Your task to perform on an android device: choose inbox layout in the gmail app Image 0: 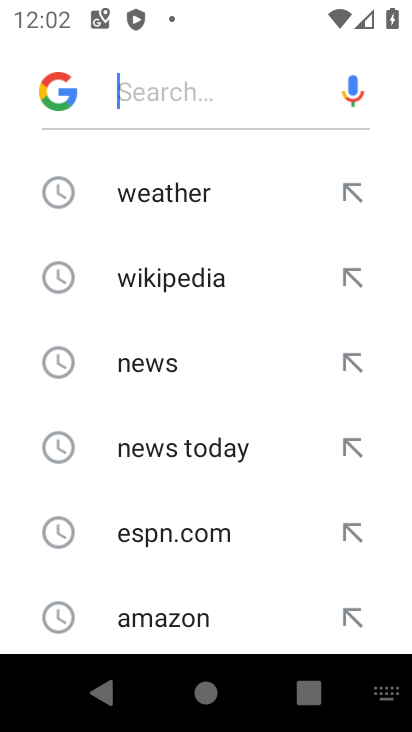
Step 0: press back button
Your task to perform on an android device: choose inbox layout in the gmail app Image 1: 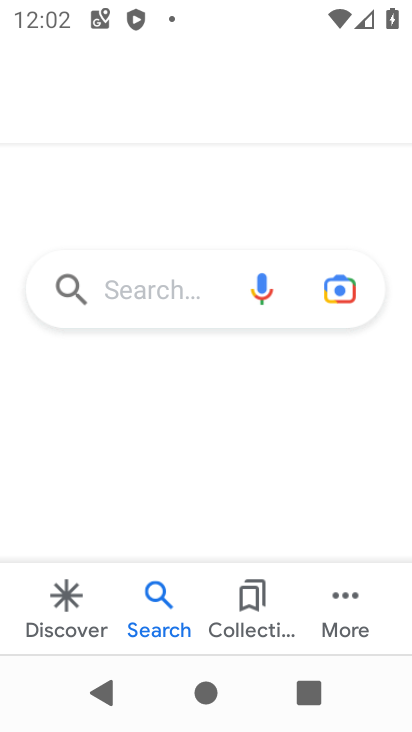
Step 1: press back button
Your task to perform on an android device: choose inbox layout in the gmail app Image 2: 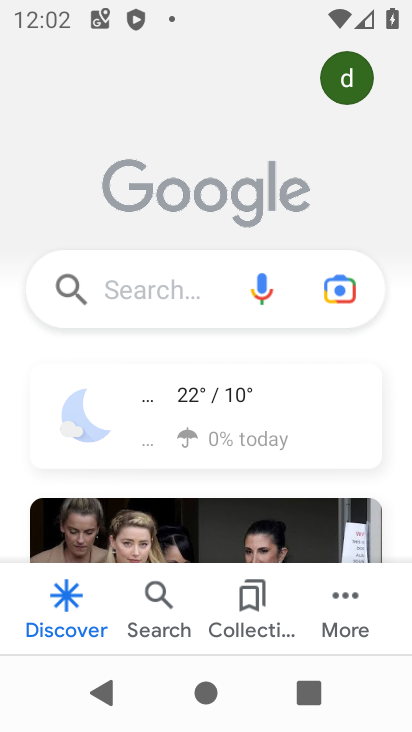
Step 2: press back button
Your task to perform on an android device: choose inbox layout in the gmail app Image 3: 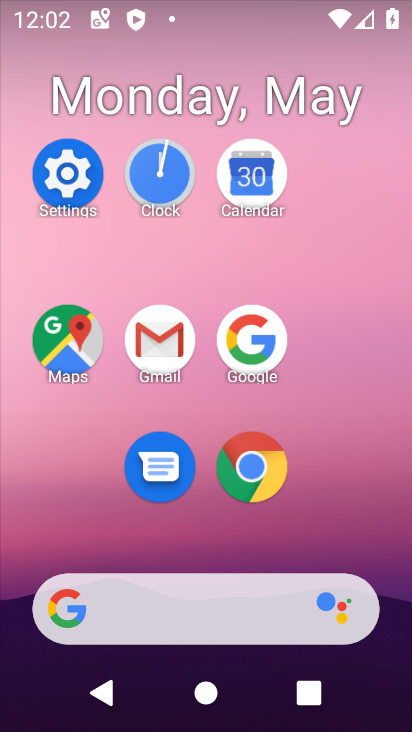
Step 3: click (160, 343)
Your task to perform on an android device: choose inbox layout in the gmail app Image 4: 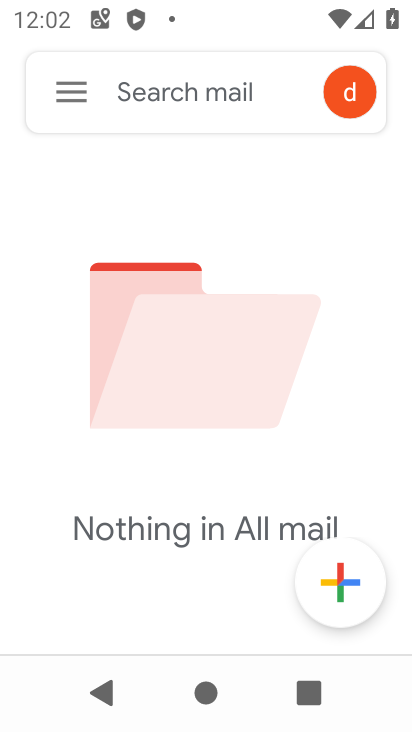
Step 4: click (47, 106)
Your task to perform on an android device: choose inbox layout in the gmail app Image 5: 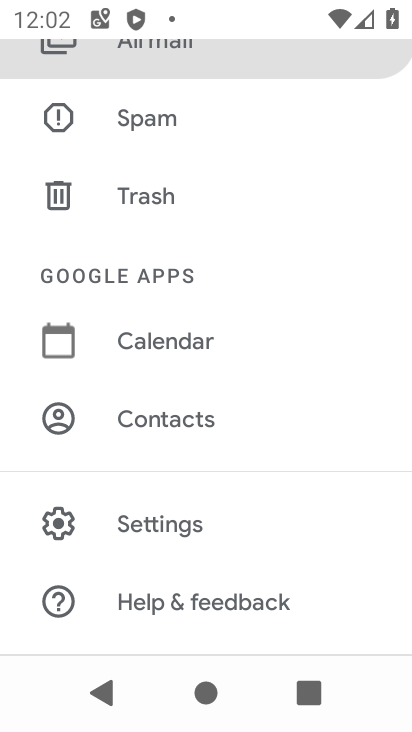
Step 5: click (216, 532)
Your task to perform on an android device: choose inbox layout in the gmail app Image 6: 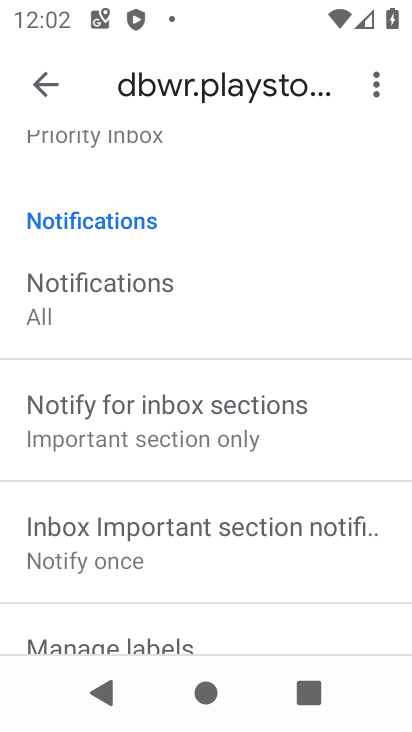
Step 6: drag from (196, 216) to (236, 527)
Your task to perform on an android device: choose inbox layout in the gmail app Image 7: 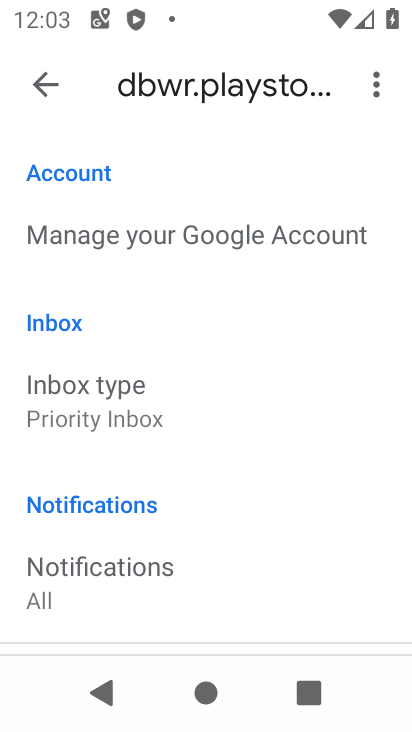
Step 7: click (178, 401)
Your task to perform on an android device: choose inbox layout in the gmail app Image 8: 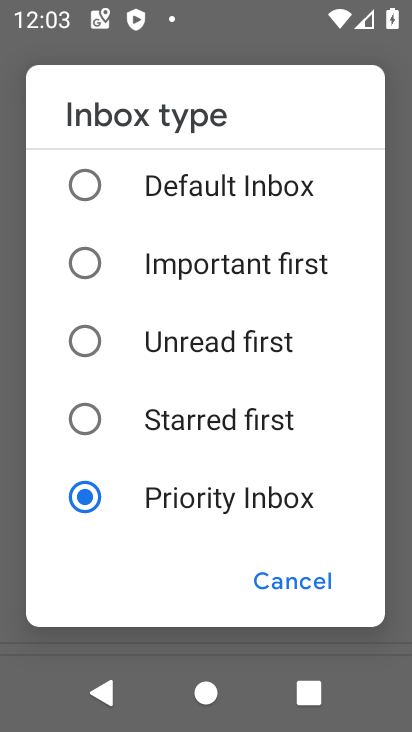
Step 8: task complete